Your task to perform on an android device: Go to privacy settings Image 0: 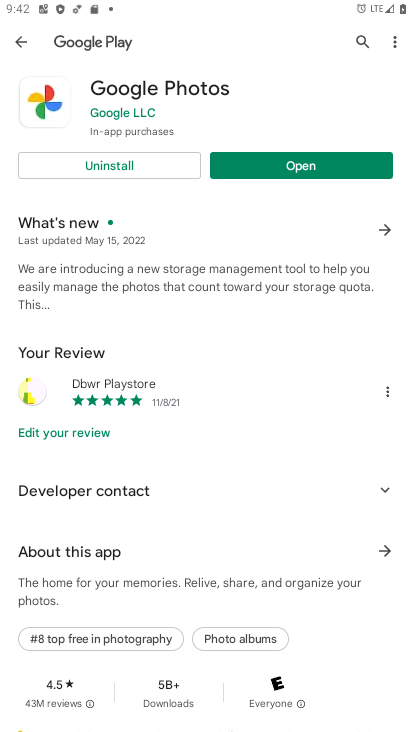
Step 0: press home button
Your task to perform on an android device: Go to privacy settings Image 1: 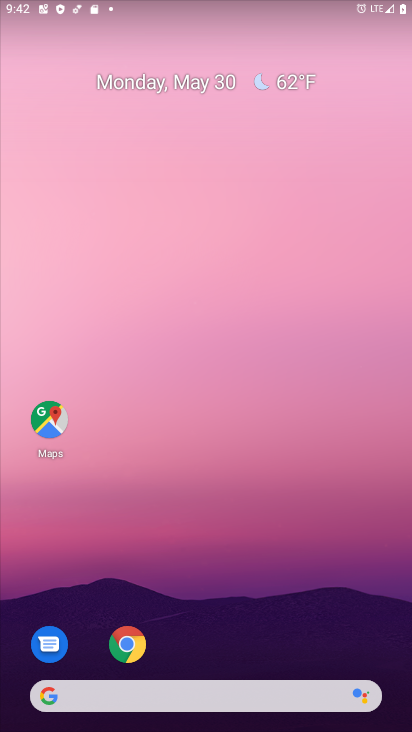
Step 1: drag from (361, 637) to (274, 51)
Your task to perform on an android device: Go to privacy settings Image 2: 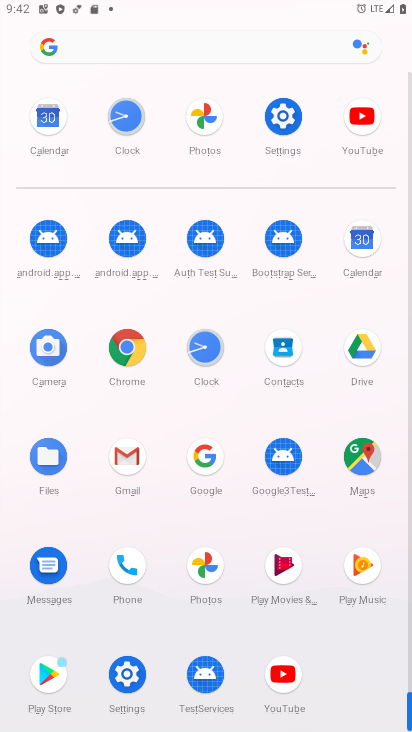
Step 2: click (125, 675)
Your task to perform on an android device: Go to privacy settings Image 3: 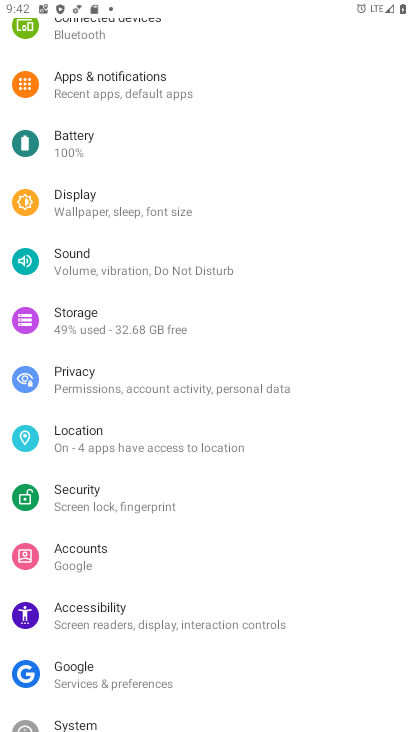
Step 3: click (87, 373)
Your task to perform on an android device: Go to privacy settings Image 4: 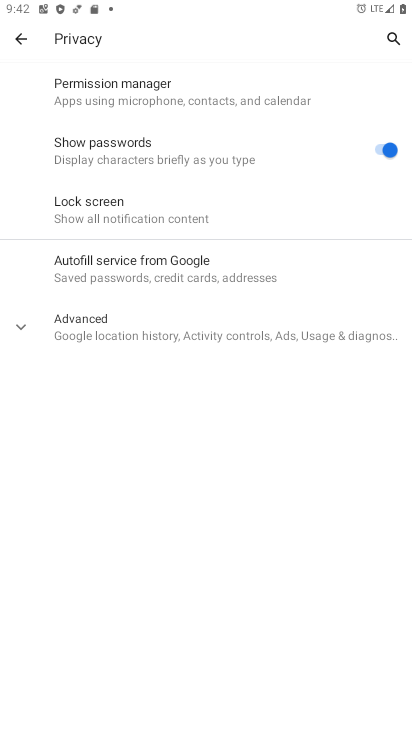
Step 4: click (17, 327)
Your task to perform on an android device: Go to privacy settings Image 5: 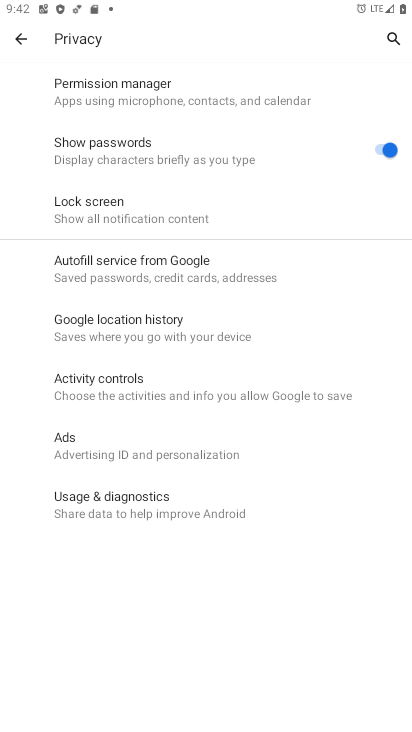
Step 5: task complete